Your task to perform on an android device: open wifi settings Image 0: 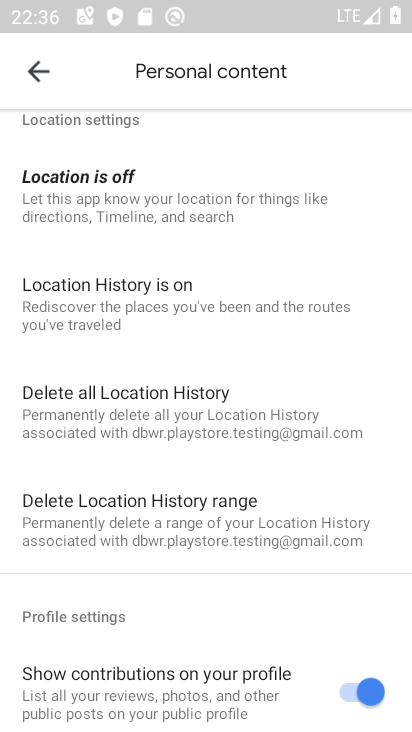
Step 0: press home button
Your task to perform on an android device: open wifi settings Image 1: 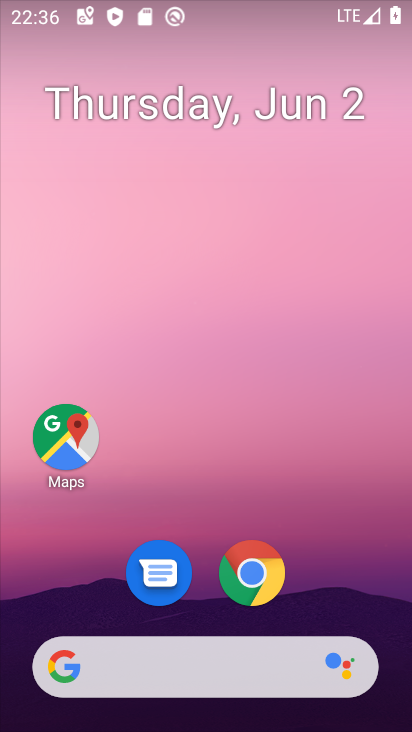
Step 1: drag from (329, 593) to (272, 196)
Your task to perform on an android device: open wifi settings Image 2: 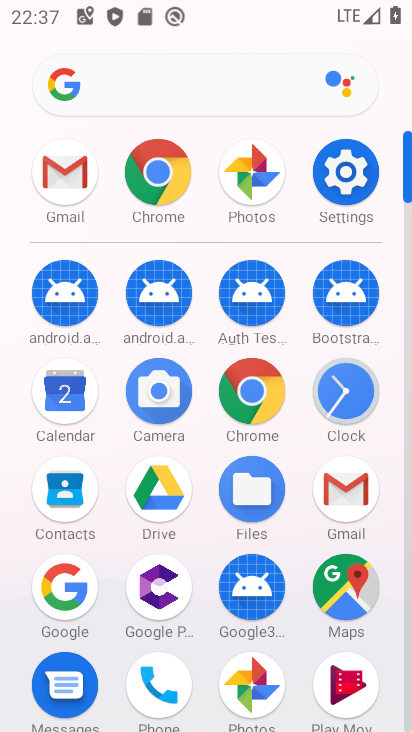
Step 2: click (344, 163)
Your task to perform on an android device: open wifi settings Image 3: 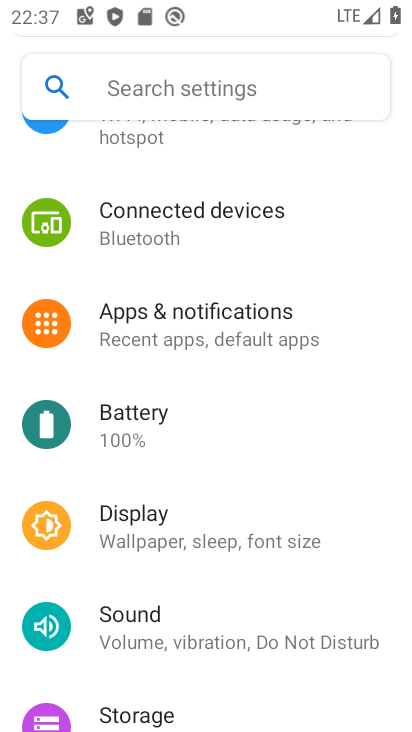
Step 3: drag from (257, 178) to (237, 478)
Your task to perform on an android device: open wifi settings Image 4: 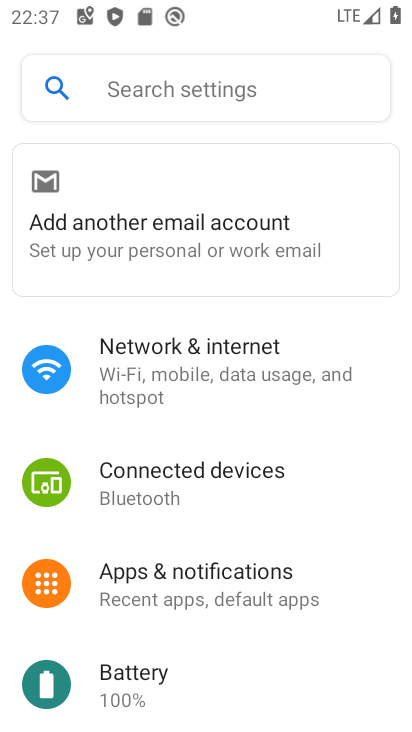
Step 4: click (214, 370)
Your task to perform on an android device: open wifi settings Image 5: 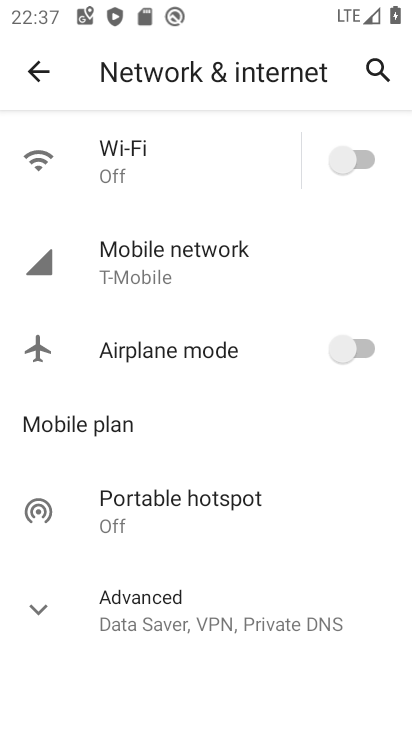
Step 5: click (149, 158)
Your task to perform on an android device: open wifi settings Image 6: 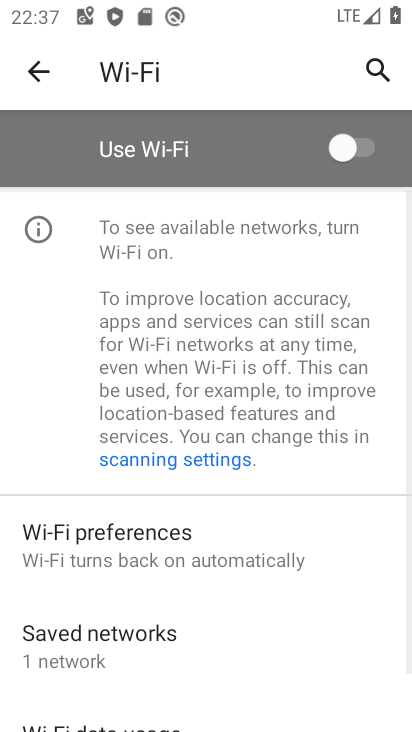
Step 6: task complete